Your task to perform on an android device: check out phone information Image 0: 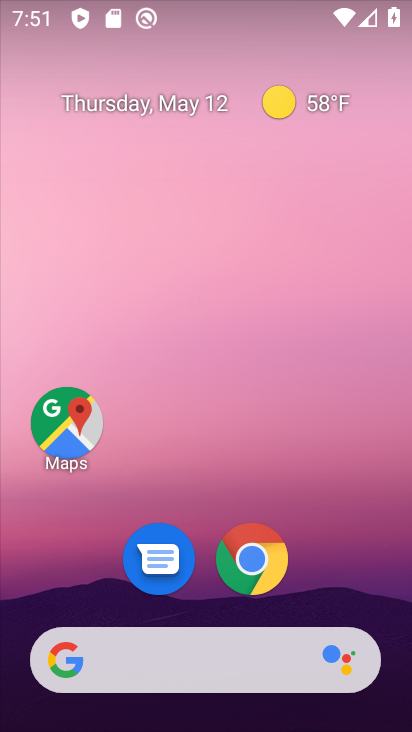
Step 0: drag from (342, 575) to (271, 15)
Your task to perform on an android device: check out phone information Image 1: 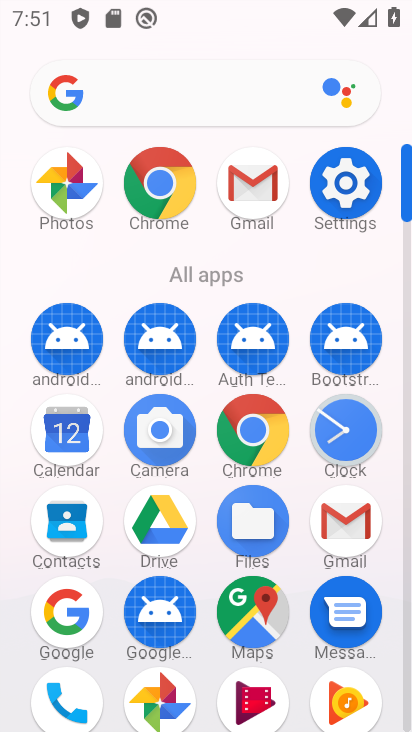
Step 1: click (345, 183)
Your task to perform on an android device: check out phone information Image 2: 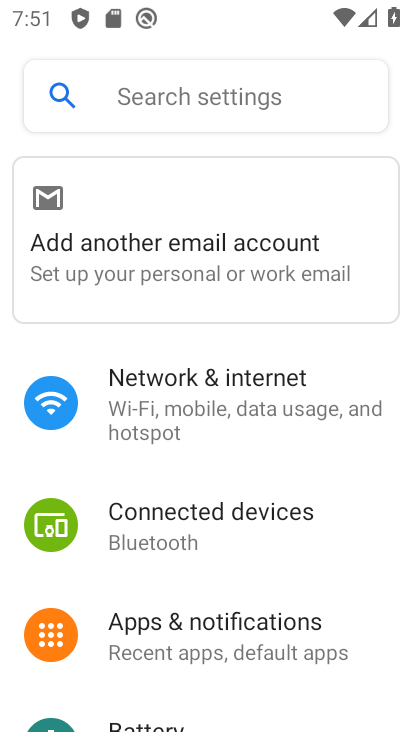
Step 2: drag from (208, 554) to (272, 355)
Your task to perform on an android device: check out phone information Image 3: 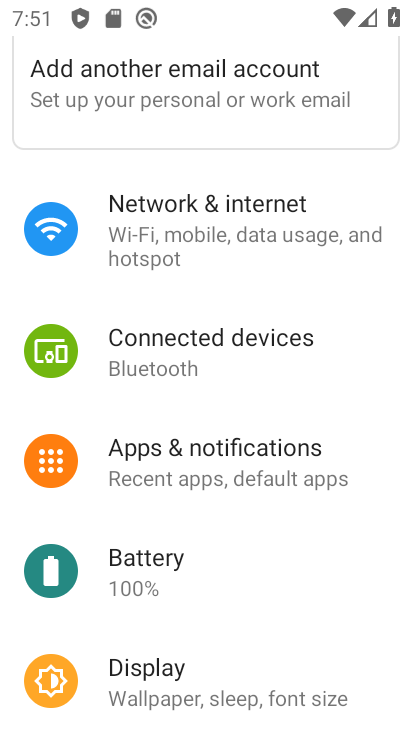
Step 3: drag from (221, 535) to (254, 341)
Your task to perform on an android device: check out phone information Image 4: 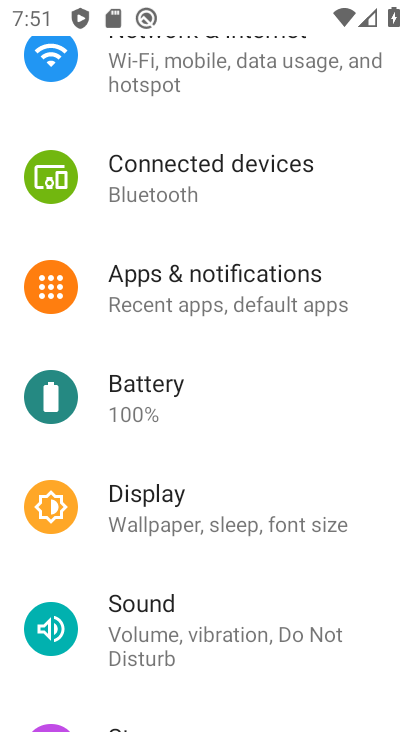
Step 4: drag from (172, 548) to (237, 369)
Your task to perform on an android device: check out phone information Image 5: 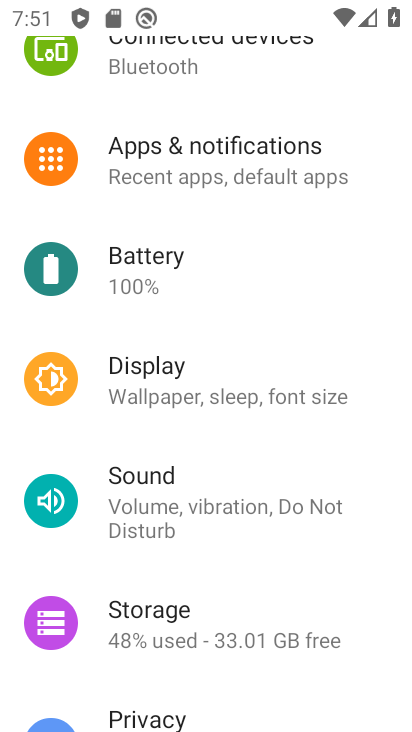
Step 5: drag from (150, 561) to (228, 401)
Your task to perform on an android device: check out phone information Image 6: 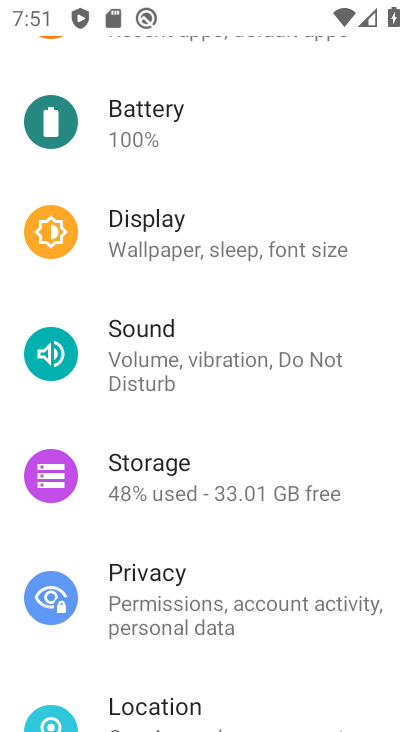
Step 6: drag from (152, 543) to (230, 353)
Your task to perform on an android device: check out phone information Image 7: 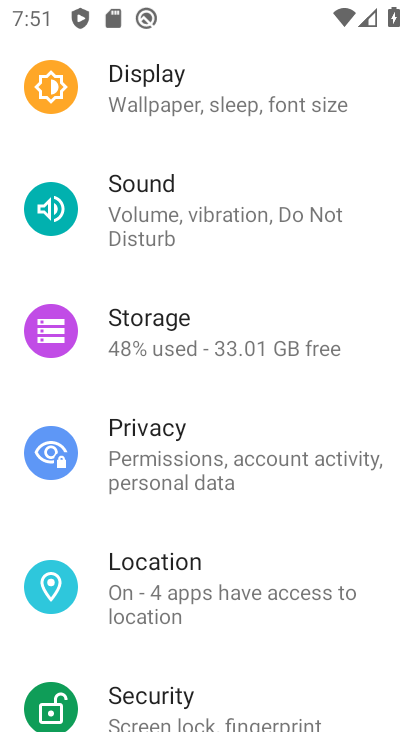
Step 7: drag from (143, 508) to (235, 368)
Your task to perform on an android device: check out phone information Image 8: 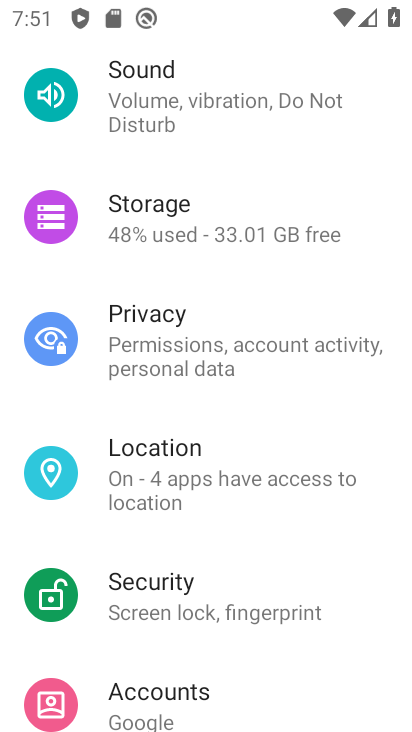
Step 8: drag from (143, 530) to (263, 400)
Your task to perform on an android device: check out phone information Image 9: 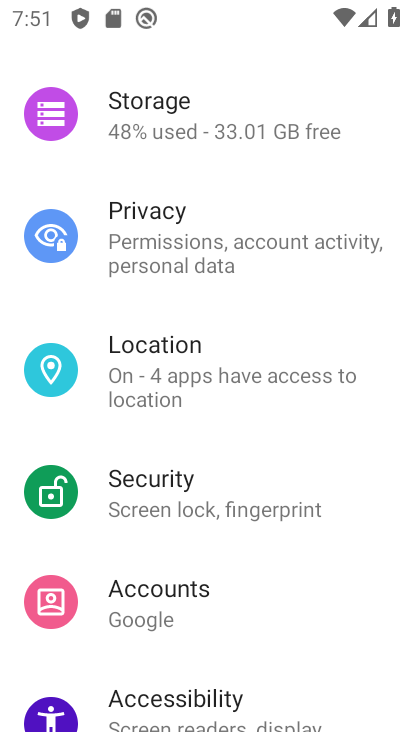
Step 9: drag from (146, 554) to (253, 440)
Your task to perform on an android device: check out phone information Image 10: 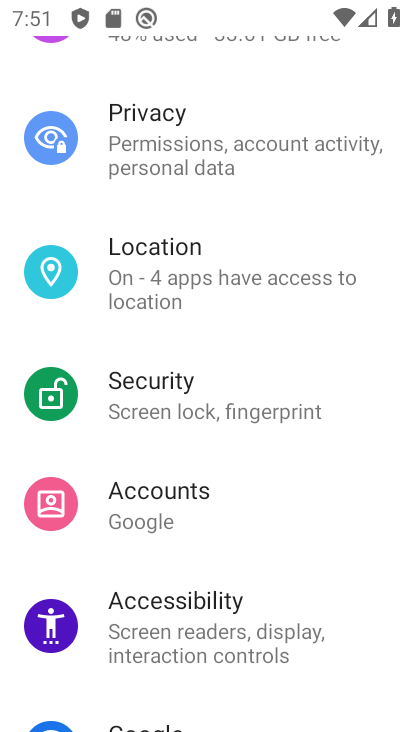
Step 10: drag from (105, 560) to (232, 429)
Your task to perform on an android device: check out phone information Image 11: 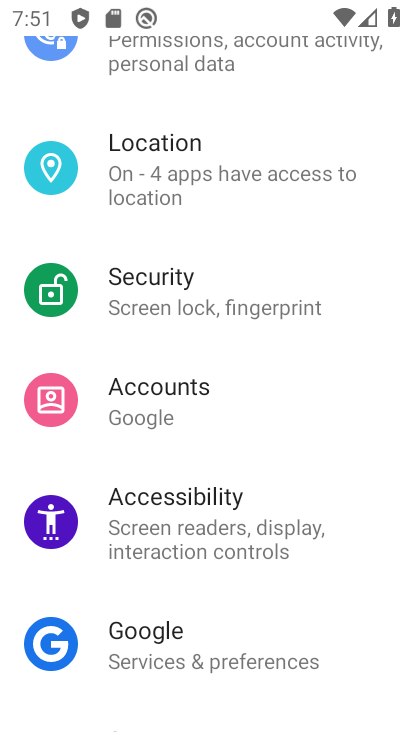
Step 11: drag from (107, 594) to (221, 472)
Your task to perform on an android device: check out phone information Image 12: 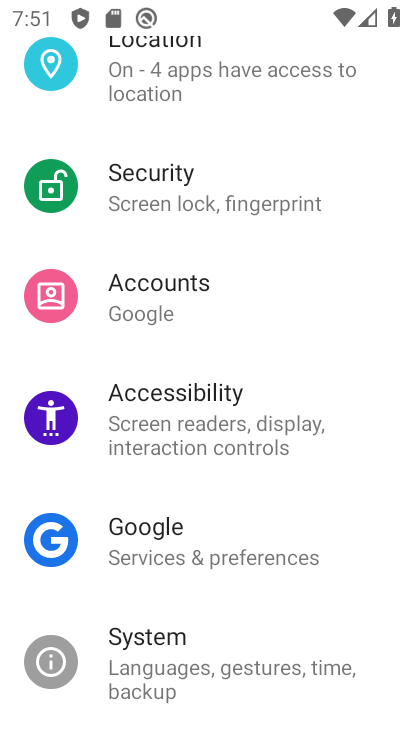
Step 12: drag from (119, 595) to (224, 468)
Your task to perform on an android device: check out phone information Image 13: 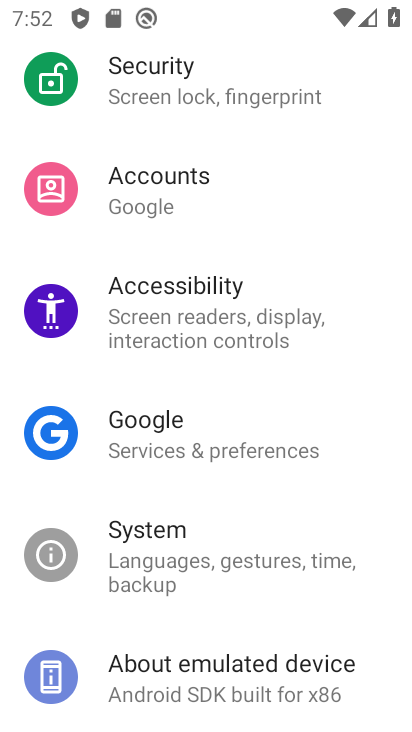
Step 13: click (164, 659)
Your task to perform on an android device: check out phone information Image 14: 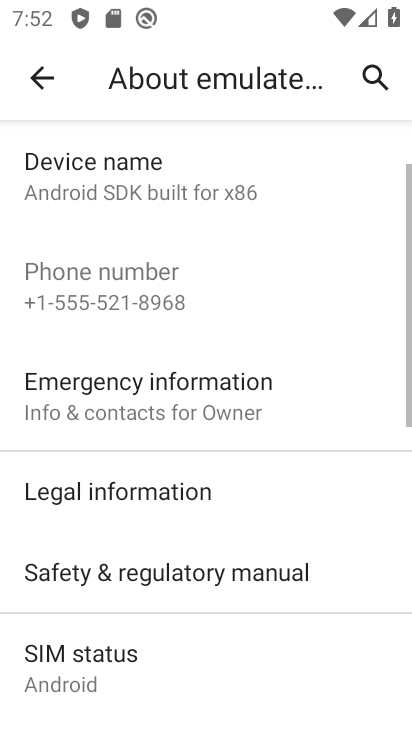
Step 14: task complete